Your task to perform on an android device: Go to ESPN.com Image 0: 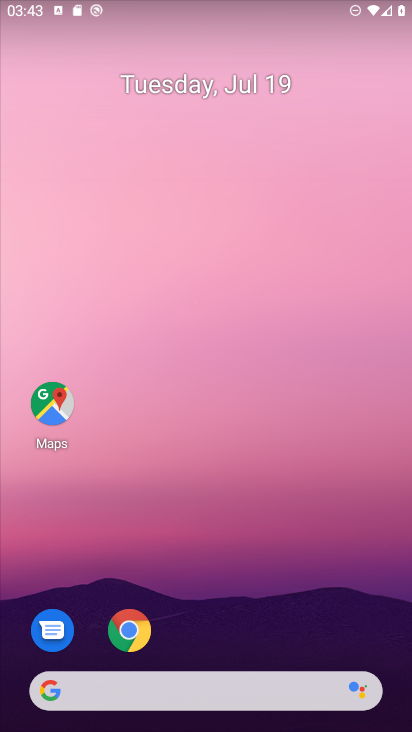
Step 0: click (127, 631)
Your task to perform on an android device: Go to ESPN.com Image 1: 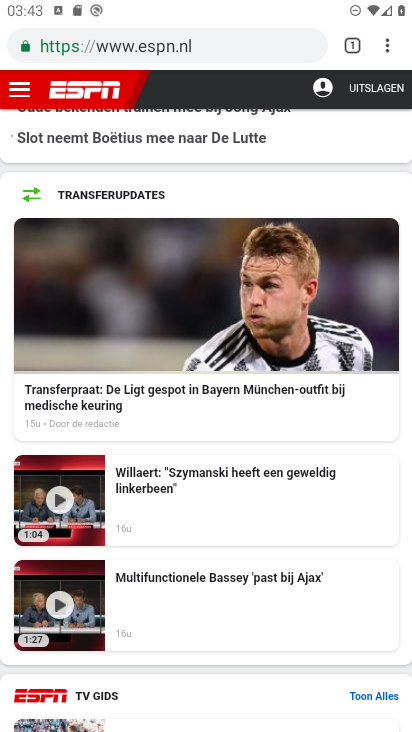
Step 1: click (225, 44)
Your task to perform on an android device: Go to ESPN.com Image 2: 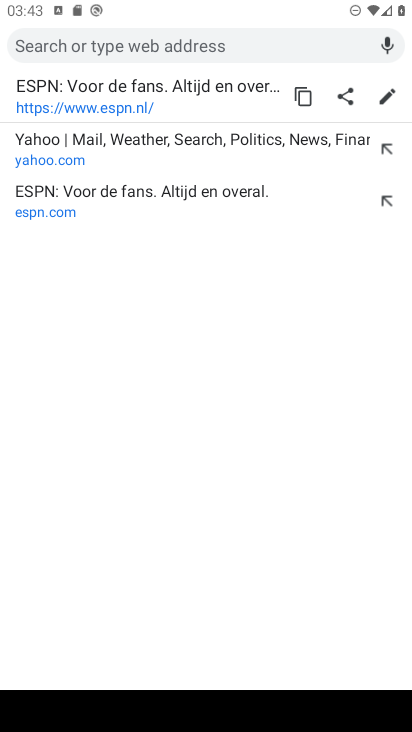
Step 2: type "espn.com"
Your task to perform on an android device: Go to ESPN.com Image 3: 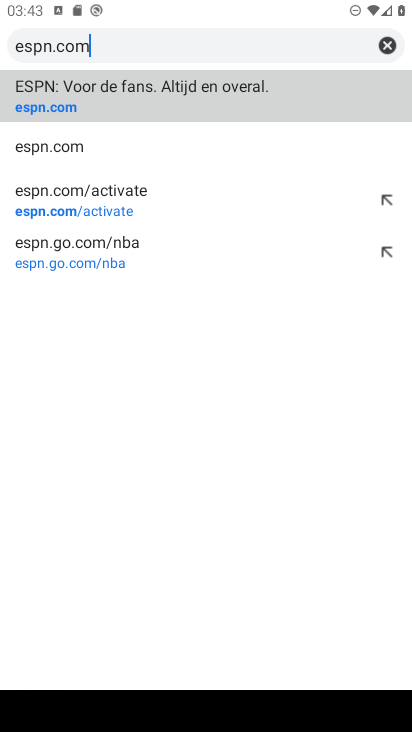
Step 3: click (107, 97)
Your task to perform on an android device: Go to ESPN.com Image 4: 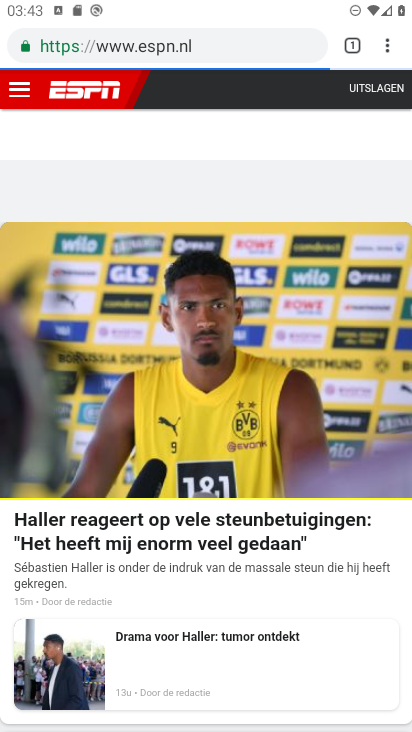
Step 4: task complete